Your task to perform on an android device: turn on wifi Image 0: 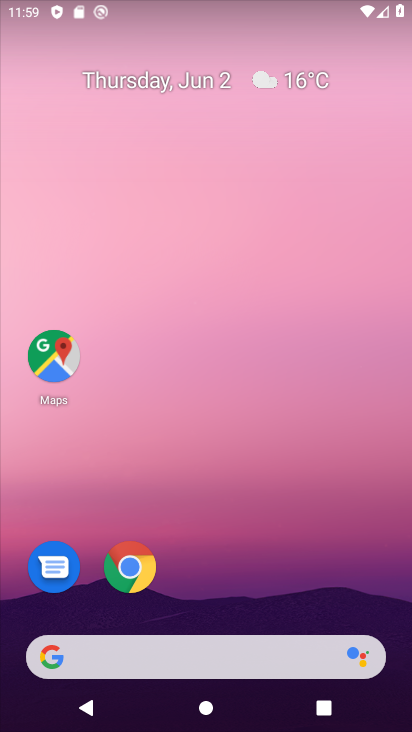
Step 0: drag from (303, 11) to (263, 445)
Your task to perform on an android device: turn on wifi Image 1: 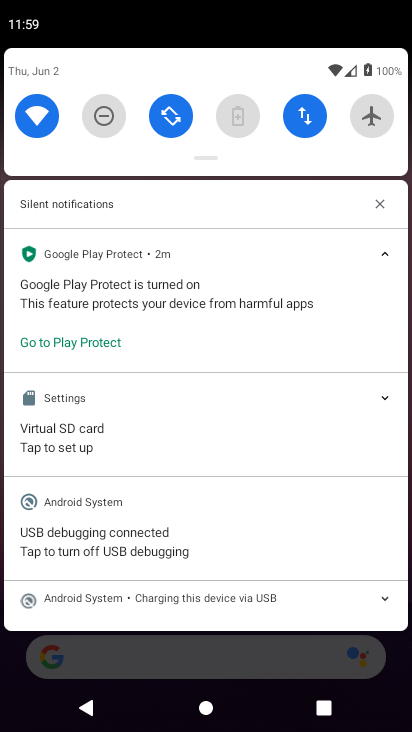
Step 1: task complete